Your task to perform on an android device: toggle notification dots Image 0: 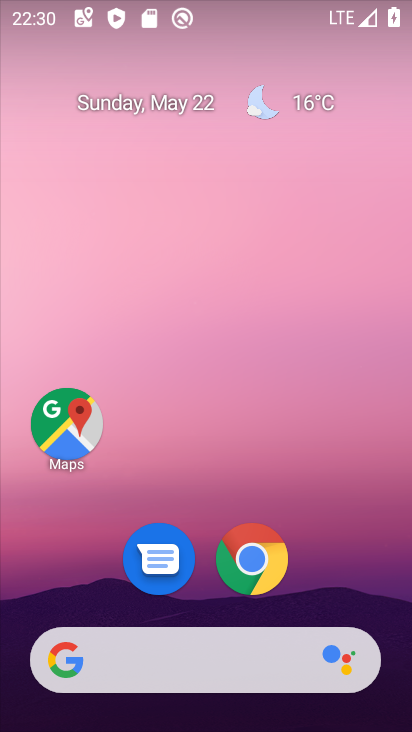
Step 0: drag from (224, 708) to (188, 204)
Your task to perform on an android device: toggle notification dots Image 1: 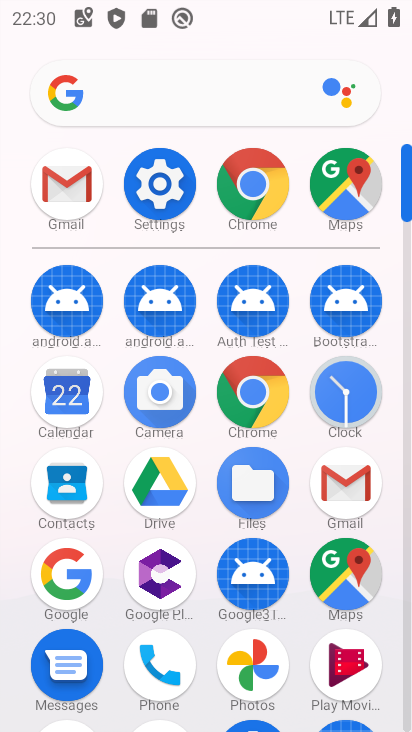
Step 1: click (160, 183)
Your task to perform on an android device: toggle notification dots Image 2: 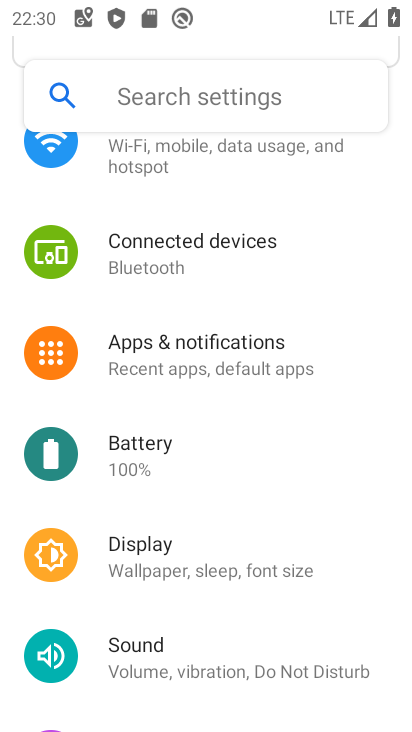
Step 2: click (183, 108)
Your task to perform on an android device: toggle notification dots Image 3: 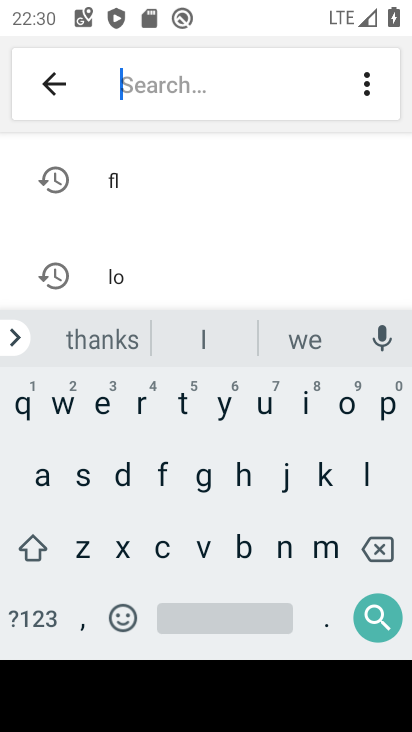
Step 3: click (121, 474)
Your task to perform on an android device: toggle notification dots Image 4: 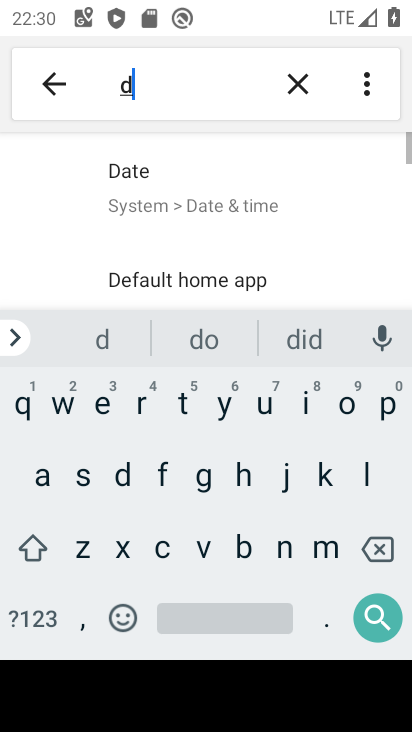
Step 4: click (341, 404)
Your task to perform on an android device: toggle notification dots Image 5: 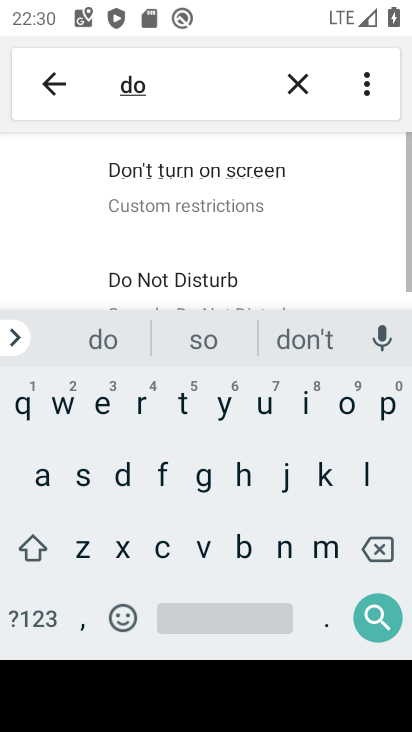
Step 5: click (185, 405)
Your task to perform on an android device: toggle notification dots Image 6: 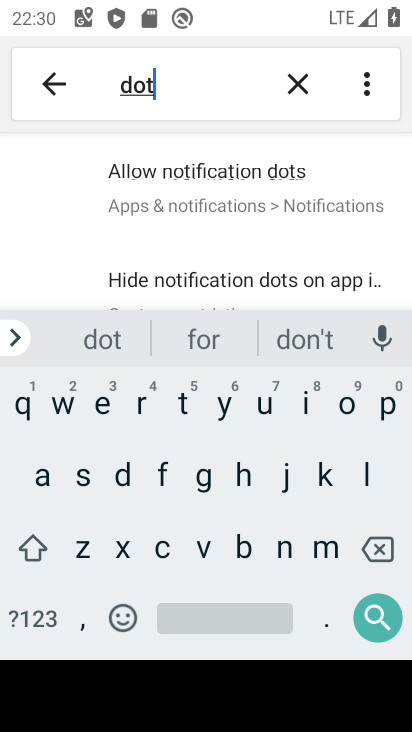
Step 6: click (154, 183)
Your task to perform on an android device: toggle notification dots Image 7: 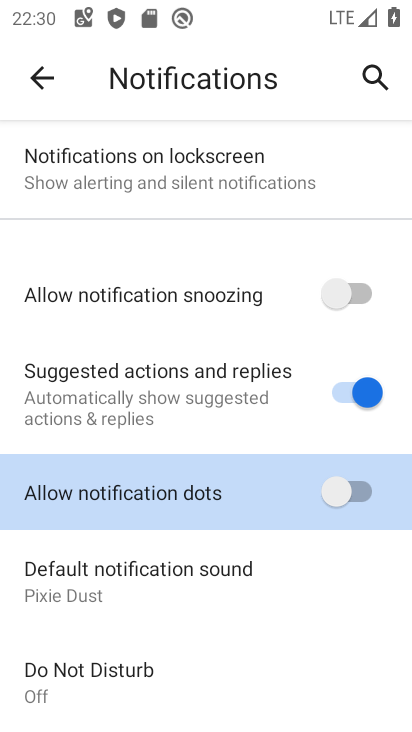
Step 7: click (232, 502)
Your task to perform on an android device: toggle notification dots Image 8: 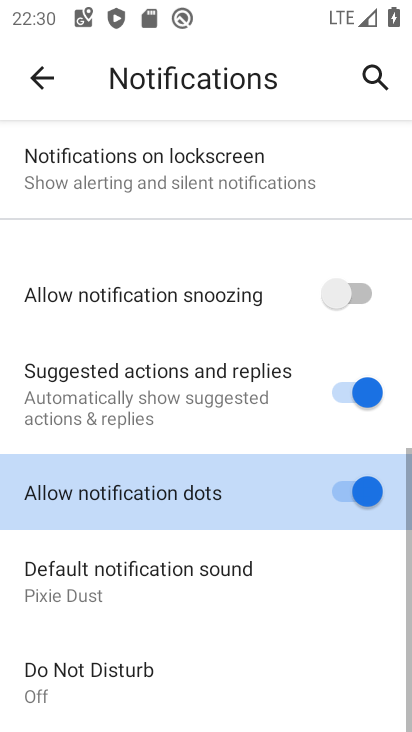
Step 8: click (232, 502)
Your task to perform on an android device: toggle notification dots Image 9: 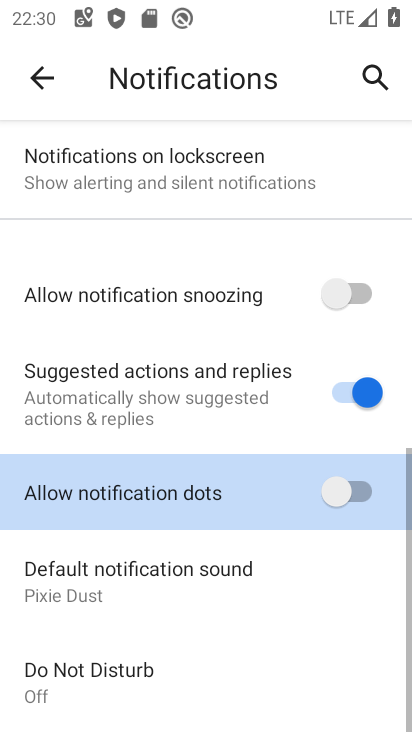
Step 9: task complete